Your task to perform on an android device: Open Wikipedia Image 0: 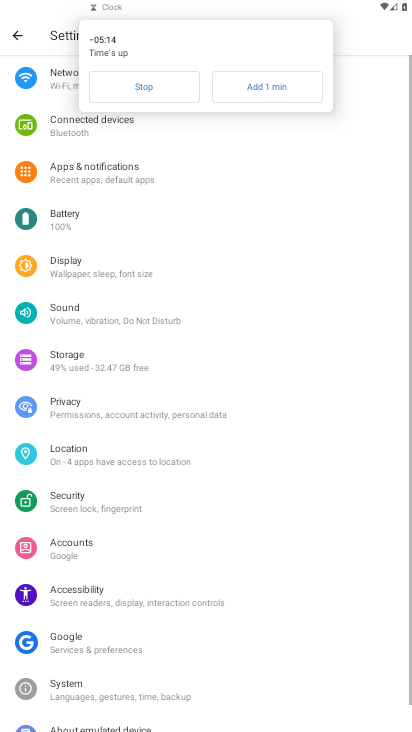
Step 0: press home button
Your task to perform on an android device: Open Wikipedia Image 1: 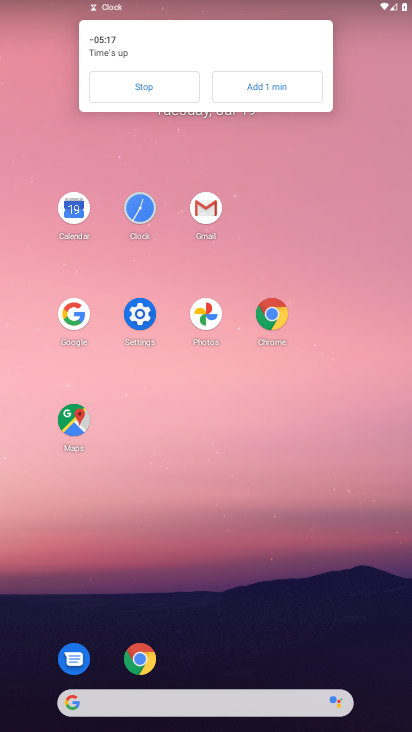
Step 1: click (161, 88)
Your task to perform on an android device: Open Wikipedia Image 2: 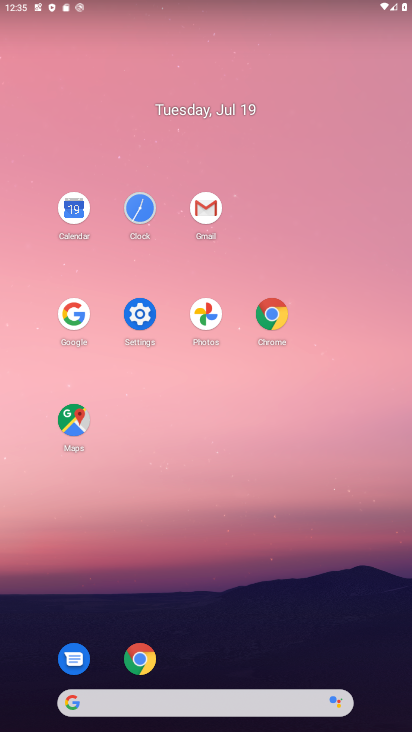
Step 2: click (274, 318)
Your task to perform on an android device: Open Wikipedia Image 3: 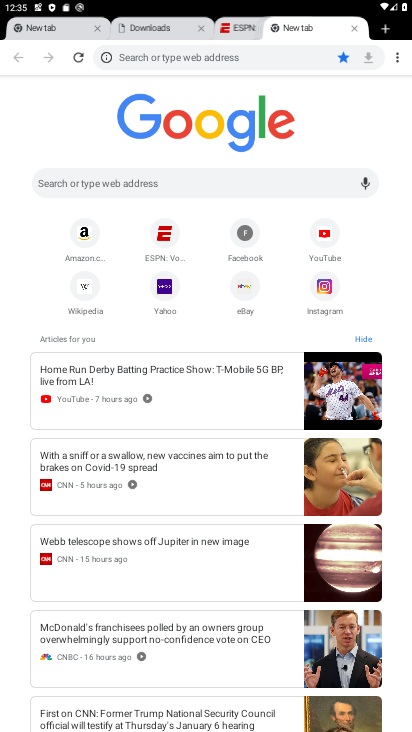
Step 3: click (87, 290)
Your task to perform on an android device: Open Wikipedia Image 4: 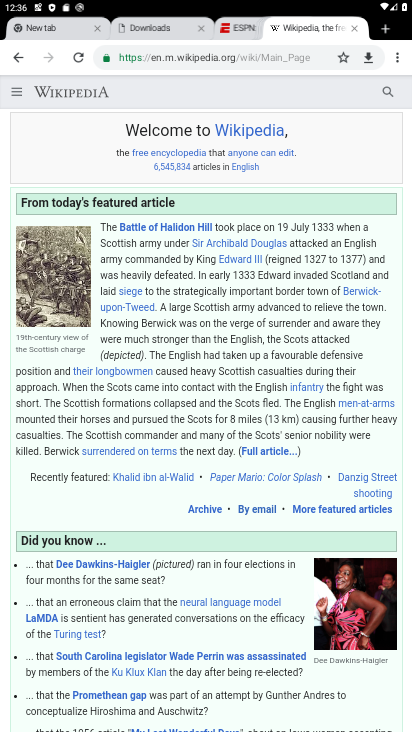
Step 4: task complete